Your task to perform on an android device: What's the weather going to be this weekend? Image 0: 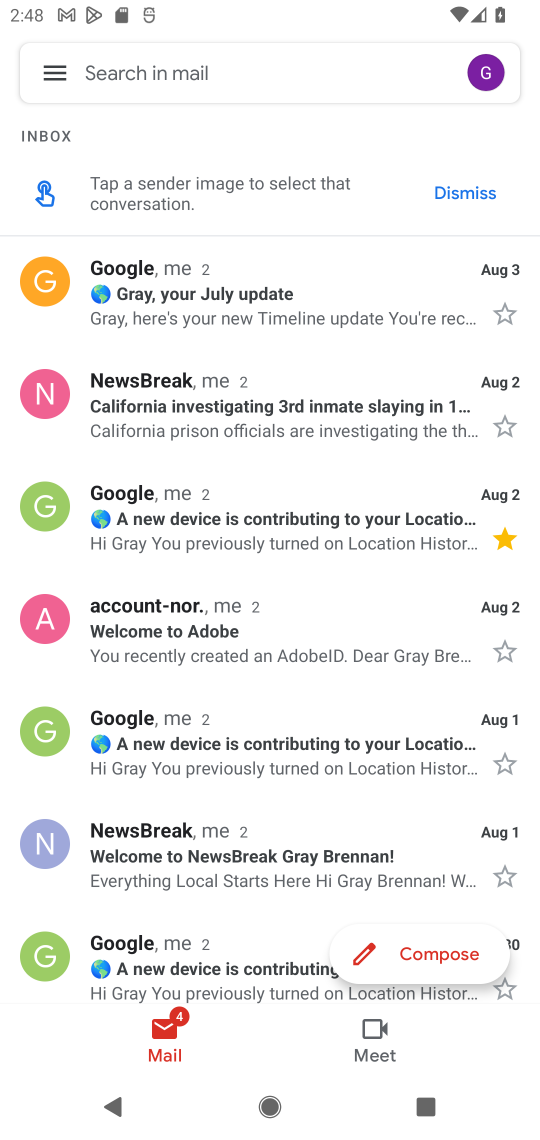
Step 0: press home button
Your task to perform on an android device: What's the weather going to be this weekend? Image 1: 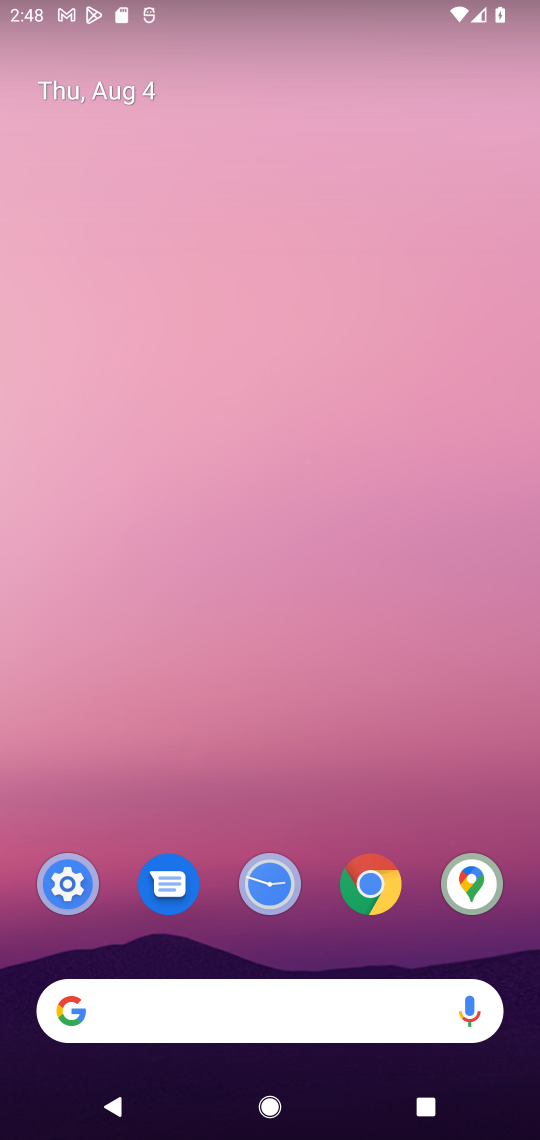
Step 1: click (315, 991)
Your task to perform on an android device: What's the weather going to be this weekend? Image 2: 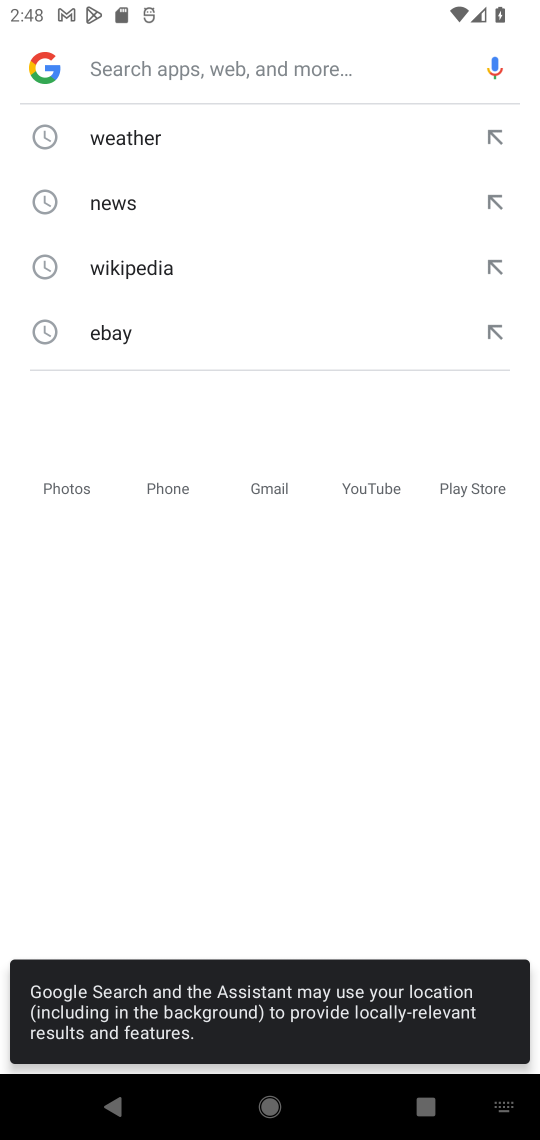
Step 2: click (192, 117)
Your task to perform on an android device: What's the weather going to be this weekend? Image 3: 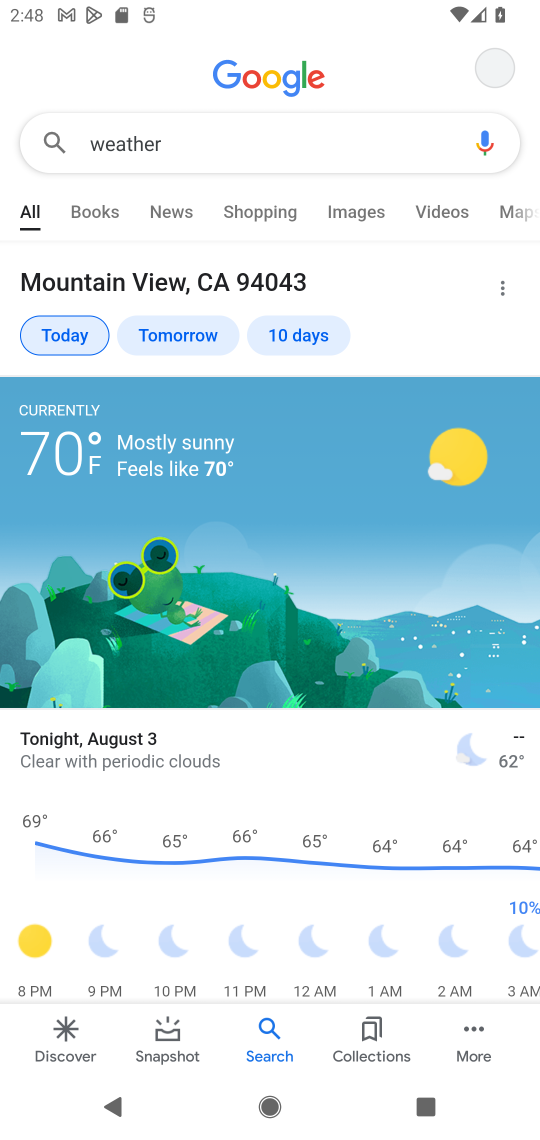
Step 3: click (285, 352)
Your task to perform on an android device: What's the weather going to be this weekend? Image 4: 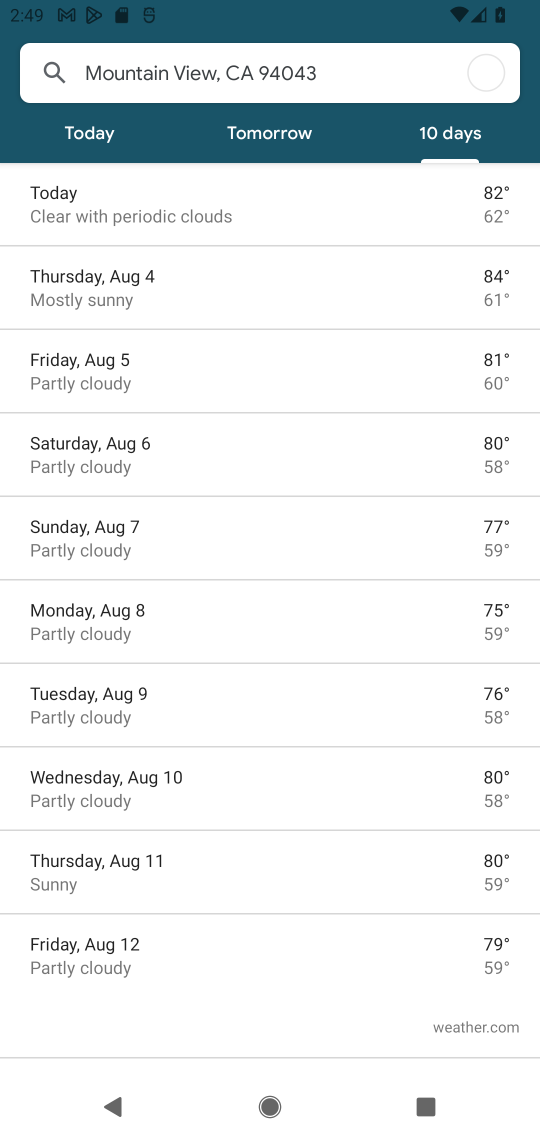
Step 4: task complete